Your task to perform on an android device: delete location history Image 0: 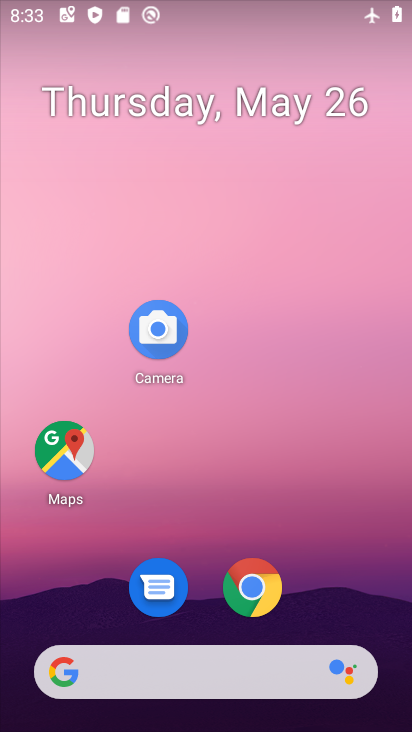
Step 0: drag from (192, 618) to (195, 255)
Your task to perform on an android device: delete location history Image 1: 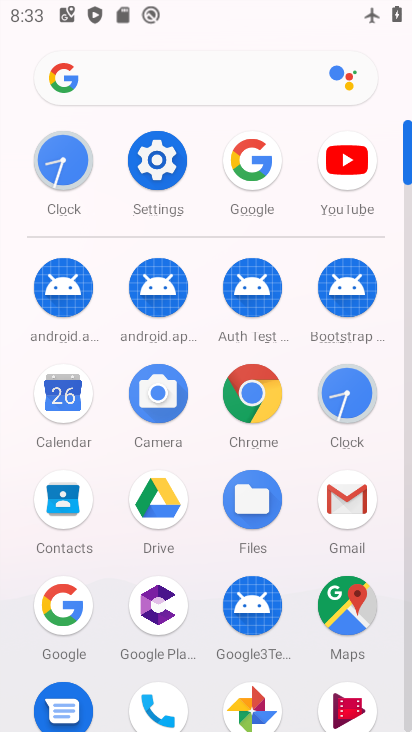
Step 1: click (331, 624)
Your task to perform on an android device: delete location history Image 2: 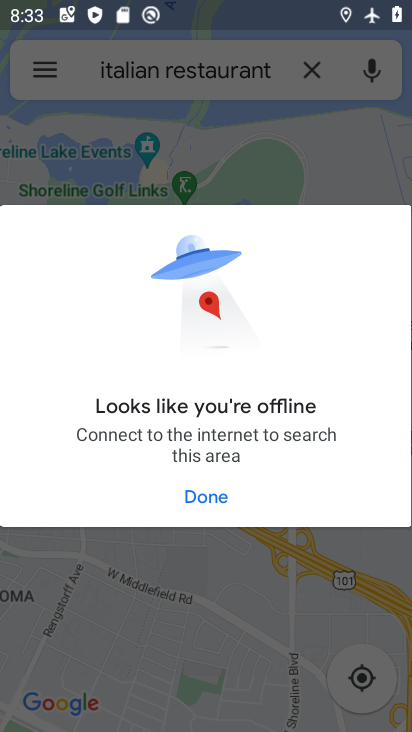
Step 2: click (207, 481)
Your task to perform on an android device: delete location history Image 3: 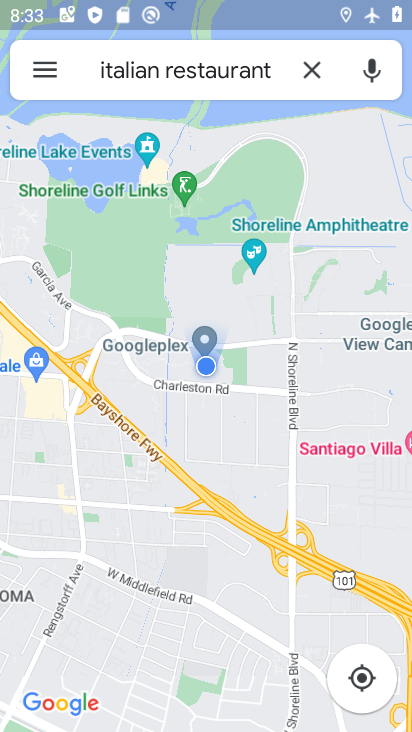
Step 3: click (51, 69)
Your task to perform on an android device: delete location history Image 4: 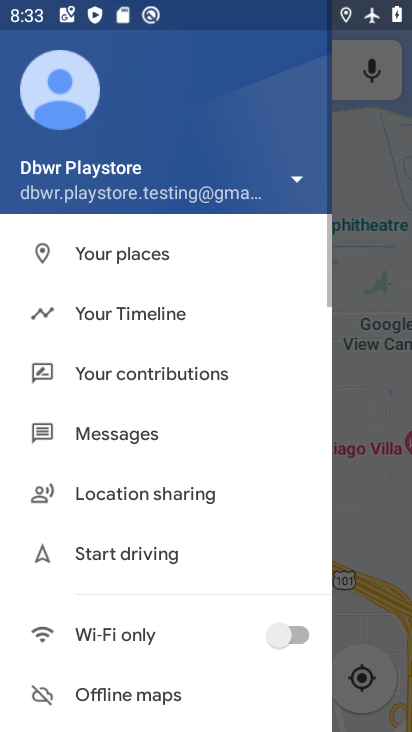
Step 4: click (132, 307)
Your task to perform on an android device: delete location history Image 5: 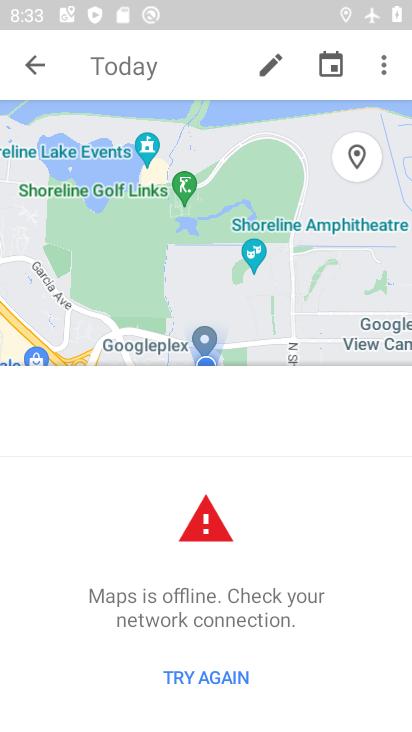
Step 5: click (375, 66)
Your task to perform on an android device: delete location history Image 6: 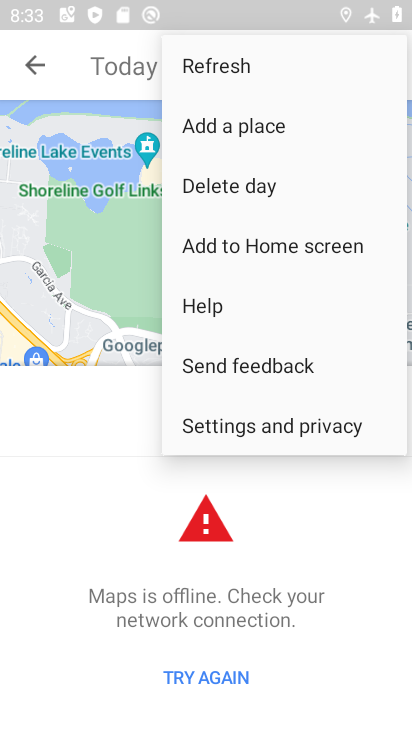
Step 6: click (261, 436)
Your task to perform on an android device: delete location history Image 7: 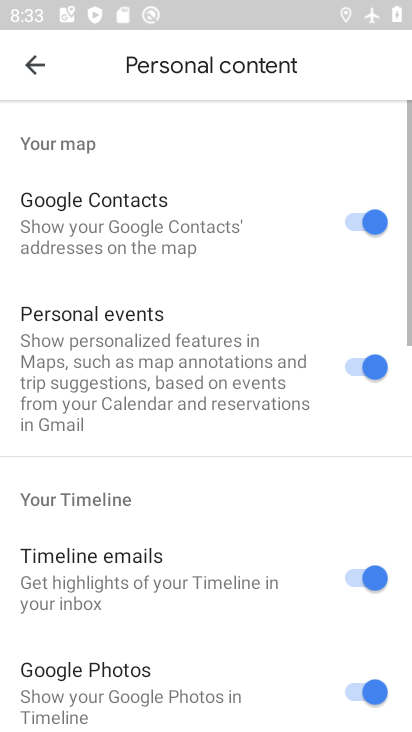
Step 7: drag from (167, 594) to (204, 229)
Your task to perform on an android device: delete location history Image 8: 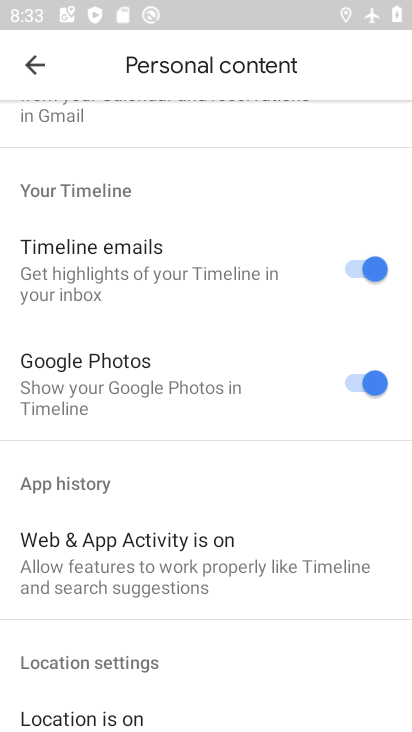
Step 8: drag from (182, 617) to (169, 358)
Your task to perform on an android device: delete location history Image 9: 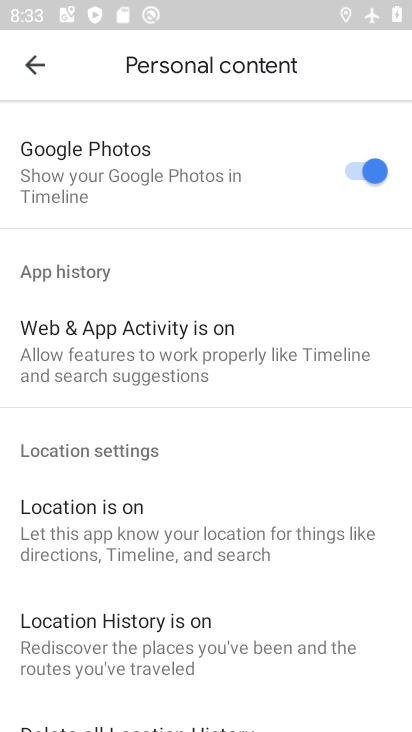
Step 9: drag from (168, 635) to (177, 337)
Your task to perform on an android device: delete location history Image 10: 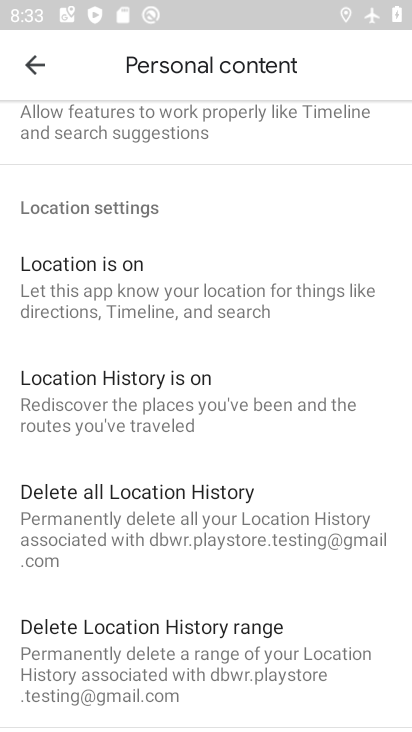
Step 10: click (178, 496)
Your task to perform on an android device: delete location history Image 11: 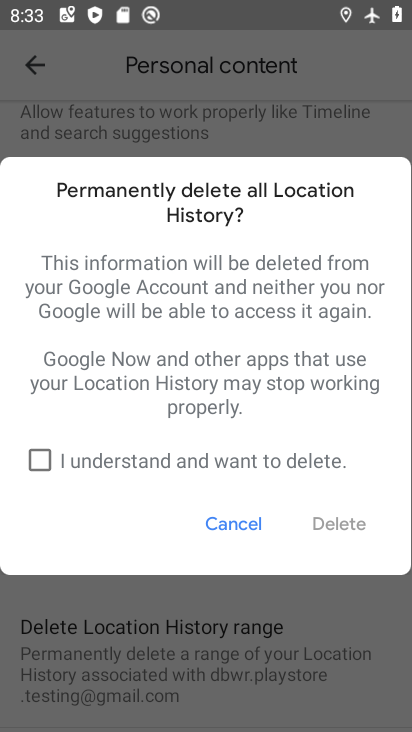
Step 11: click (172, 456)
Your task to perform on an android device: delete location history Image 12: 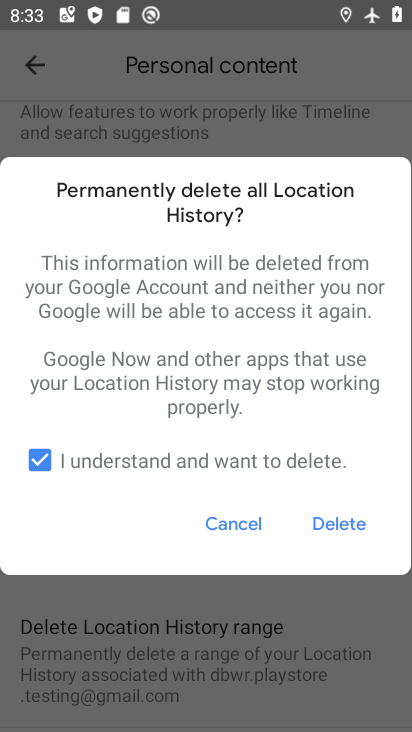
Step 12: click (315, 514)
Your task to perform on an android device: delete location history Image 13: 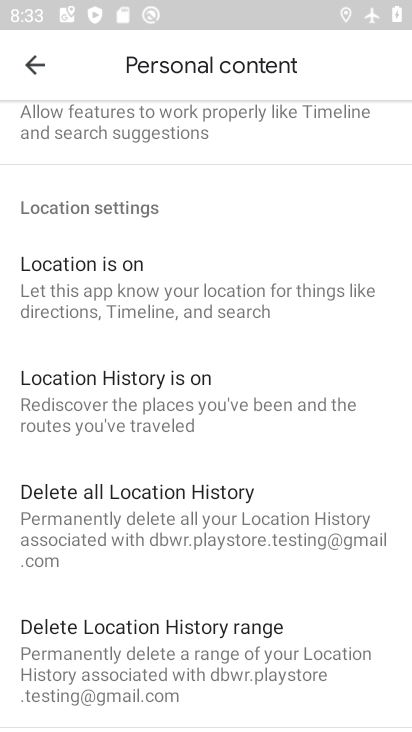
Step 13: task complete